Your task to perform on an android device: Find coffee shops on Maps Image 0: 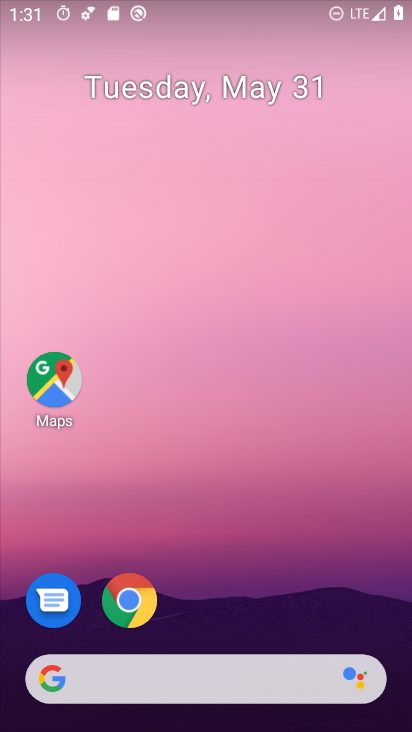
Step 0: drag from (222, 726) to (225, 213)
Your task to perform on an android device: Find coffee shops on Maps Image 1: 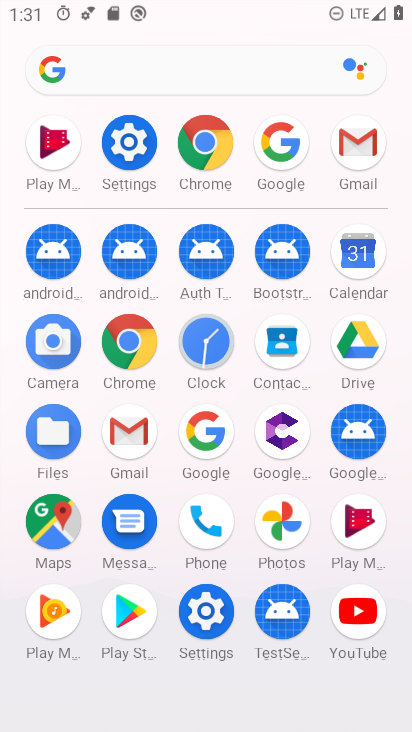
Step 1: click (50, 521)
Your task to perform on an android device: Find coffee shops on Maps Image 2: 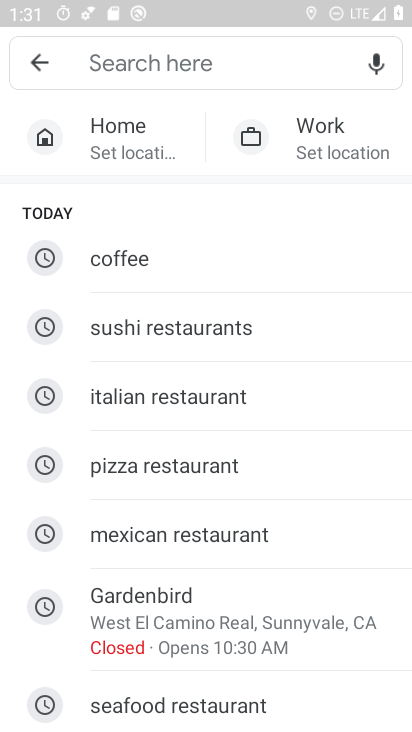
Step 2: click (114, 256)
Your task to perform on an android device: Find coffee shops on Maps Image 3: 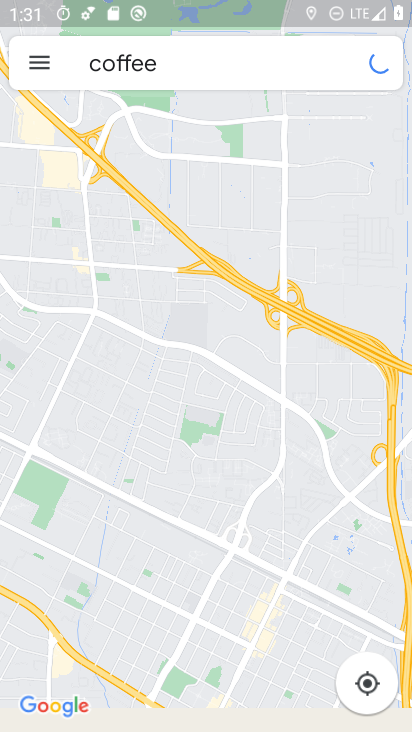
Step 3: click (207, 61)
Your task to perform on an android device: Find coffee shops on Maps Image 4: 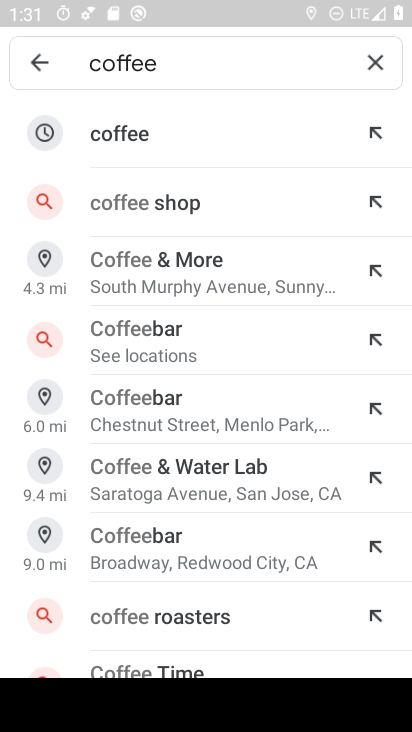
Step 4: type " shop"
Your task to perform on an android device: Find coffee shops on Maps Image 5: 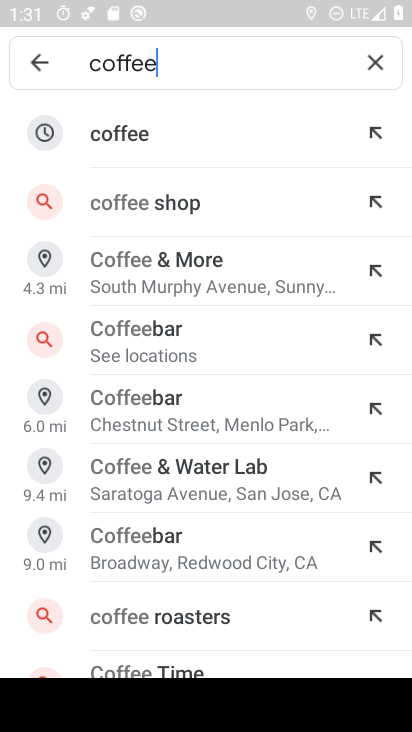
Step 5: click (193, 195)
Your task to perform on an android device: Find coffee shops on Maps Image 6: 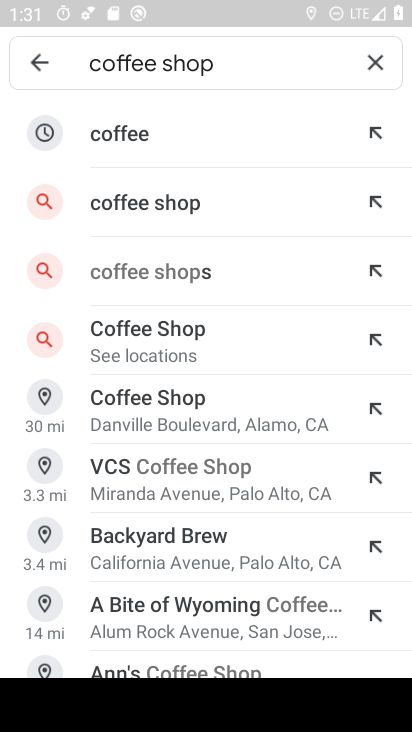
Step 6: click (192, 198)
Your task to perform on an android device: Find coffee shops on Maps Image 7: 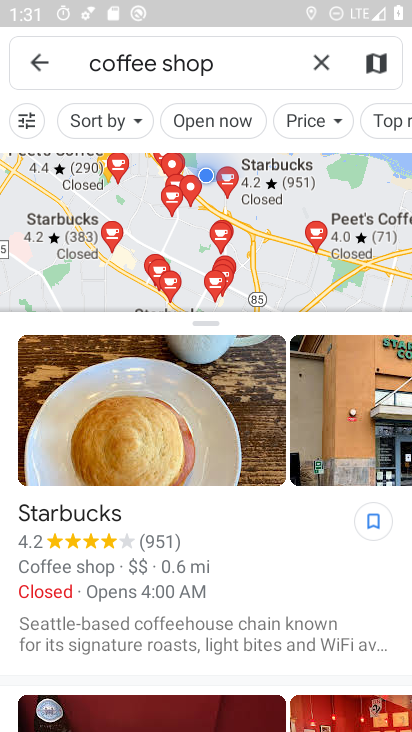
Step 7: task complete